Your task to perform on an android device: change the clock display to digital Image 0: 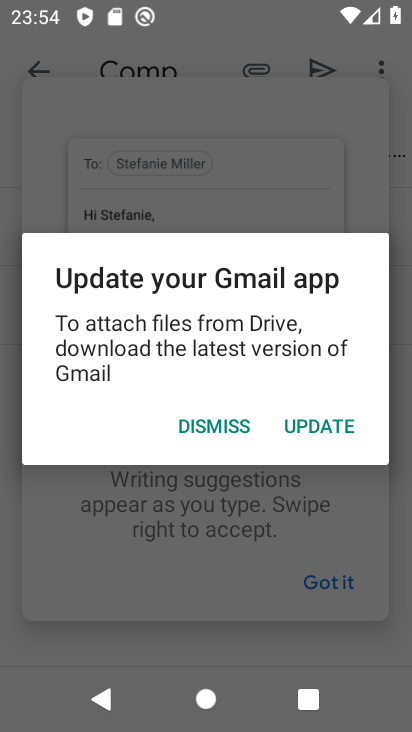
Step 0: press home button
Your task to perform on an android device: change the clock display to digital Image 1: 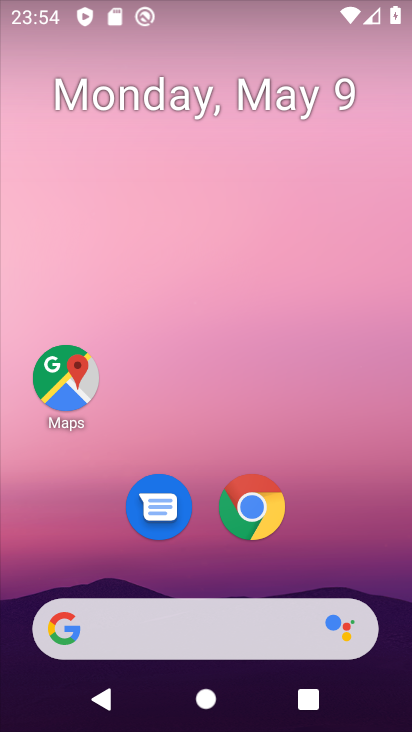
Step 1: drag from (342, 445) to (323, 211)
Your task to perform on an android device: change the clock display to digital Image 2: 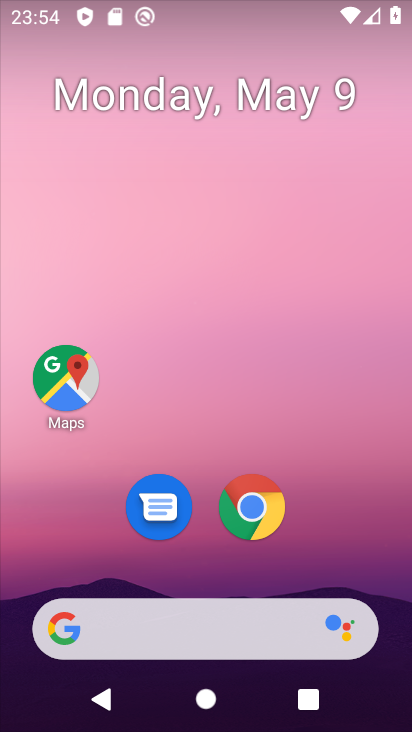
Step 2: drag from (348, 525) to (317, 142)
Your task to perform on an android device: change the clock display to digital Image 3: 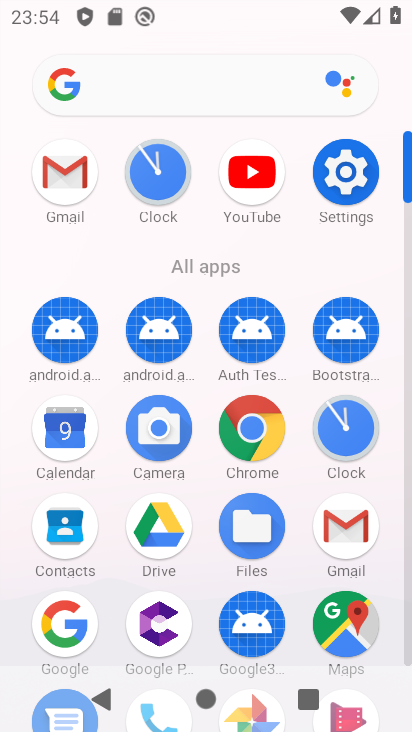
Step 3: click (331, 421)
Your task to perform on an android device: change the clock display to digital Image 4: 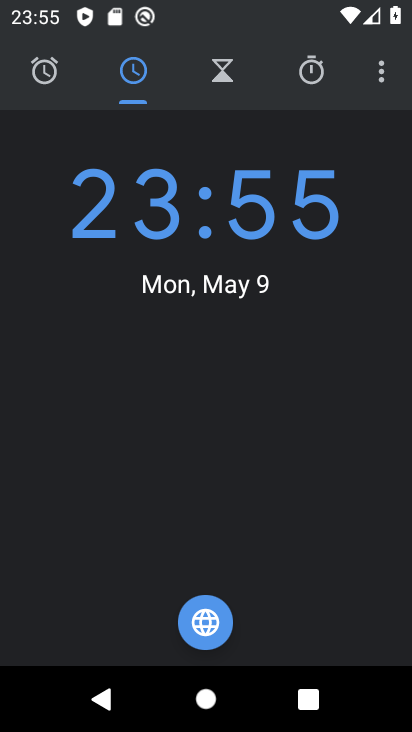
Step 4: click (376, 79)
Your task to perform on an android device: change the clock display to digital Image 5: 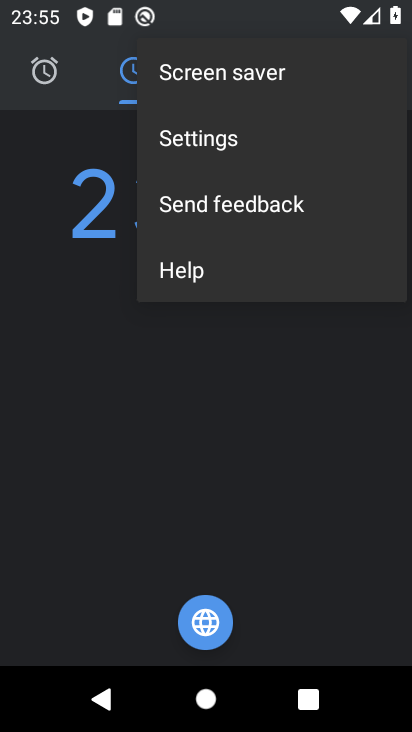
Step 5: click (243, 149)
Your task to perform on an android device: change the clock display to digital Image 6: 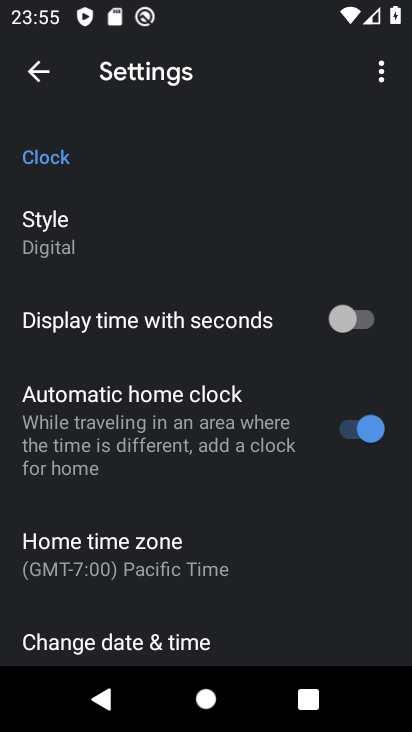
Step 6: task complete